Your task to perform on an android device: What's the weather today? Image 0: 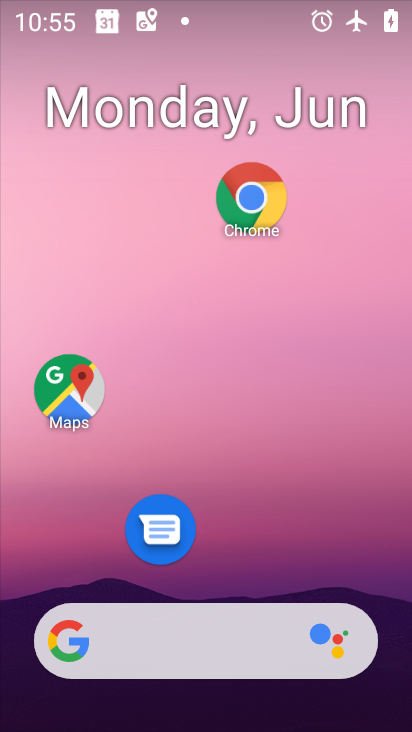
Step 0: drag from (214, 577) to (219, 91)
Your task to perform on an android device: What's the weather today? Image 1: 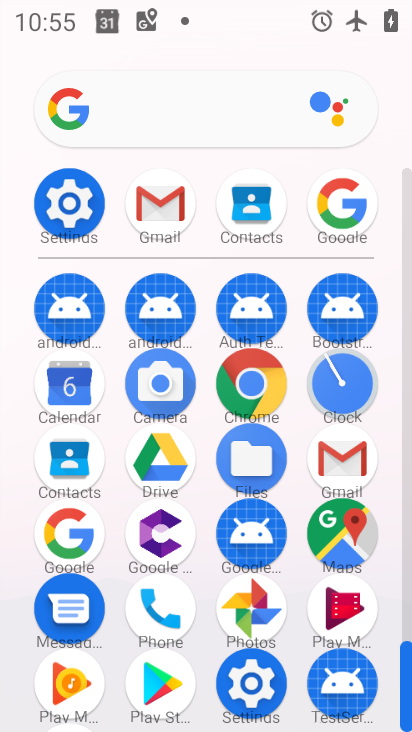
Step 1: click (72, 521)
Your task to perform on an android device: What's the weather today? Image 2: 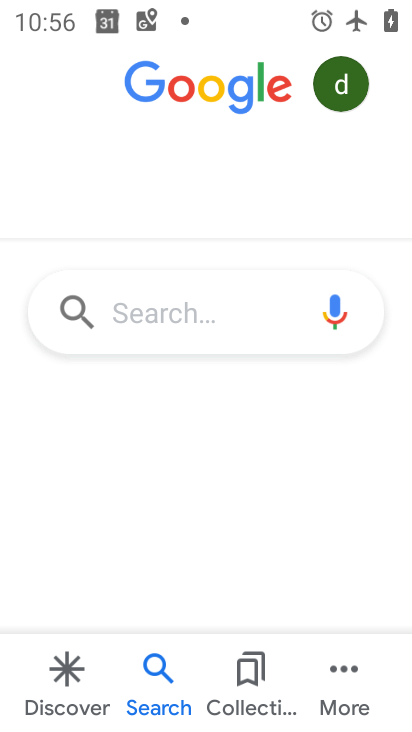
Step 2: click (184, 336)
Your task to perform on an android device: What's the weather today? Image 3: 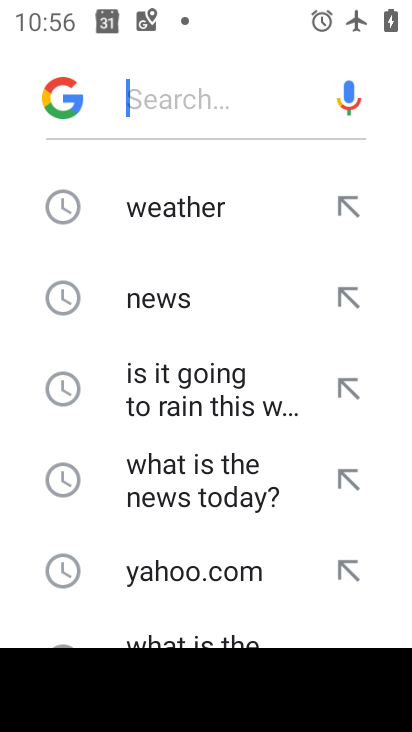
Step 3: click (189, 204)
Your task to perform on an android device: What's the weather today? Image 4: 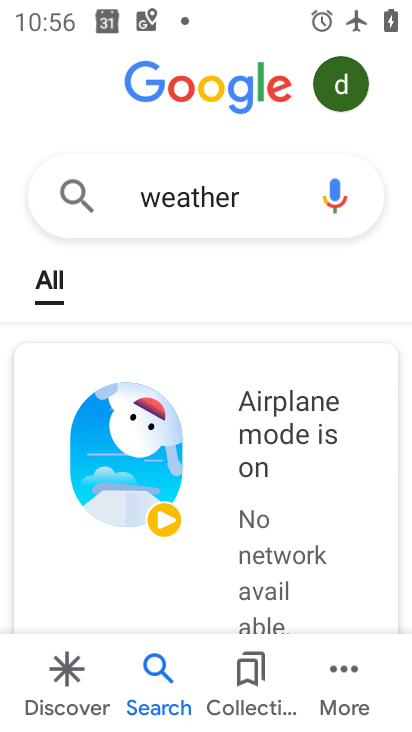
Step 4: task complete